Your task to perform on an android device: turn vacation reply on in the gmail app Image 0: 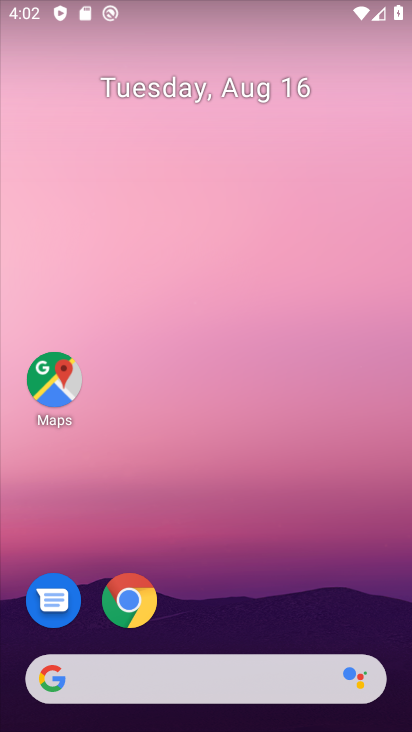
Step 0: click (132, 604)
Your task to perform on an android device: turn vacation reply on in the gmail app Image 1: 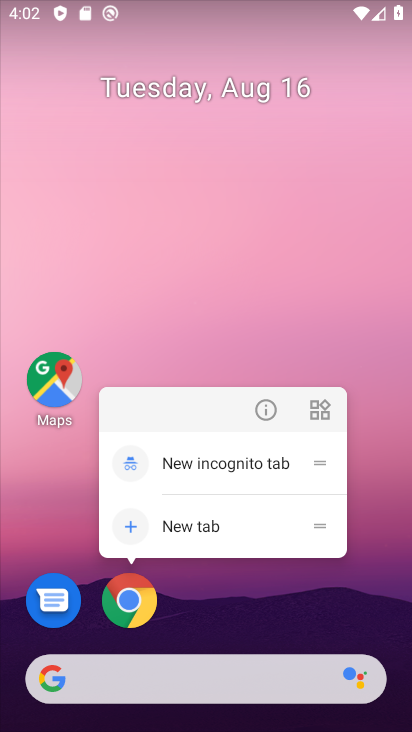
Step 1: click (139, 598)
Your task to perform on an android device: turn vacation reply on in the gmail app Image 2: 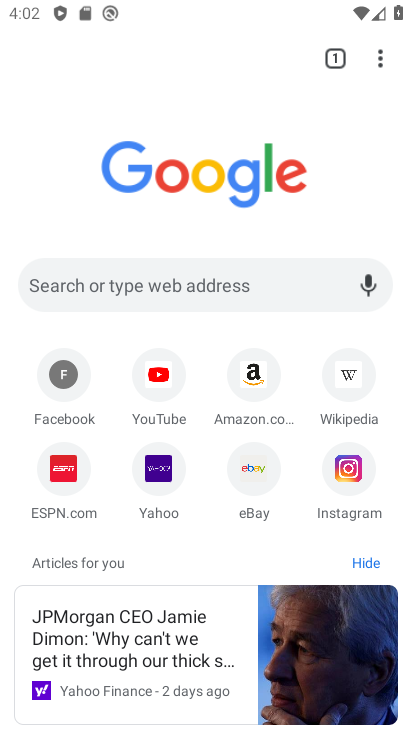
Step 2: click (123, 612)
Your task to perform on an android device: turn vacation reply on in the gmail app Image 3: 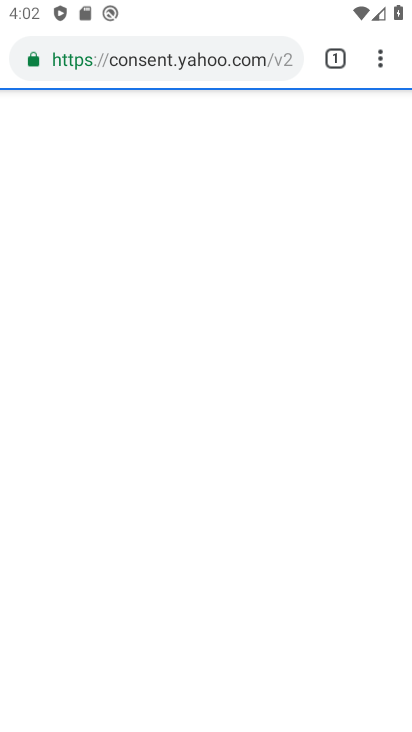
Step 3: press home button
Your task to perform on an android device: turn vacation reply on in the gmail app Image 4: 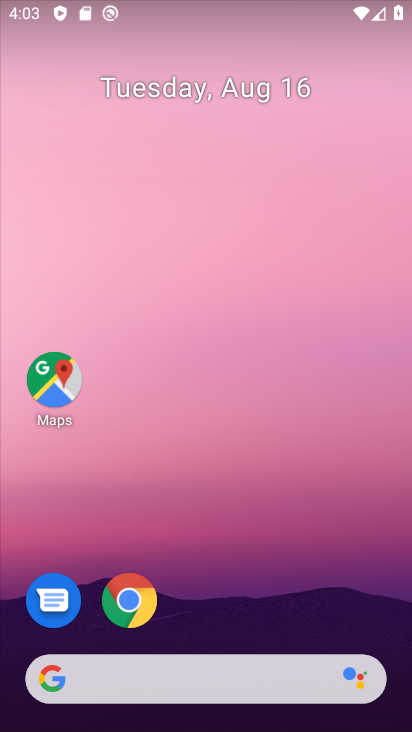
Step 4: drag from (231, 590) to (229, 112)
Your task to perform on an android device: turn vacation reply on in the gmail app Image 5: 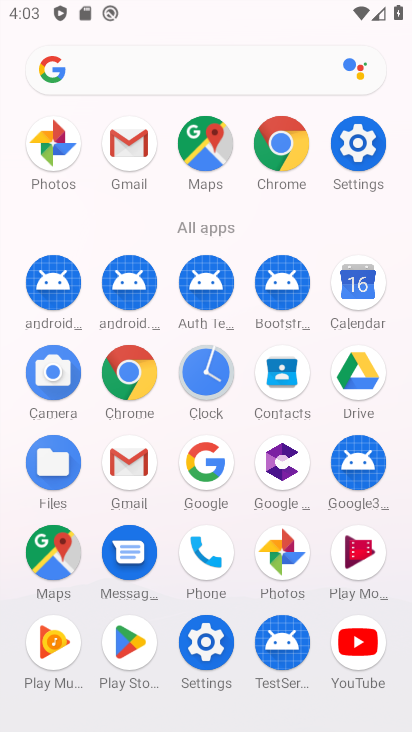
Step 5: click (129, 464)
Your task to perform on an android device: turn vacation reply on in the gmail app Image 6: 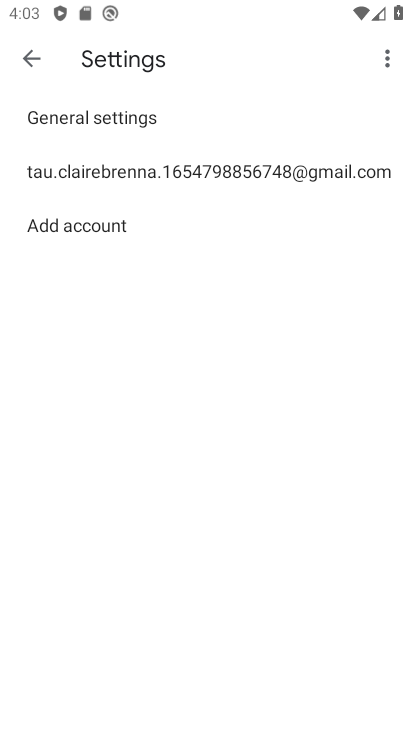
Step 6: click (85, 173)
Your task to perform on an android device: turn vacation reply on in the gmail app Image 7: 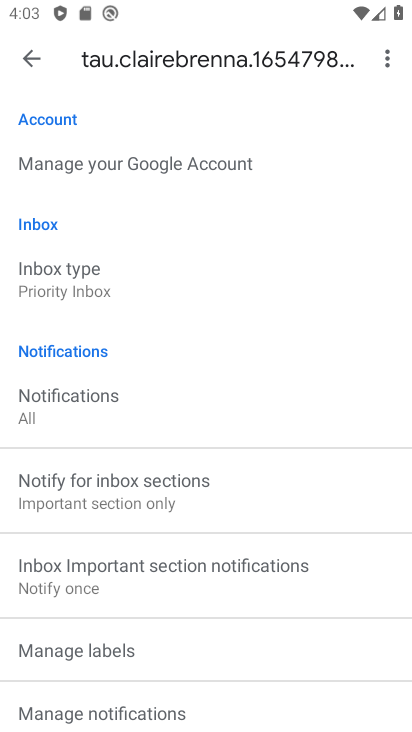
Step 7: drag from (118, 567) to (142, 418)
Your task to perform on an android device: turn vacation reply on in the gmail app Image 8: 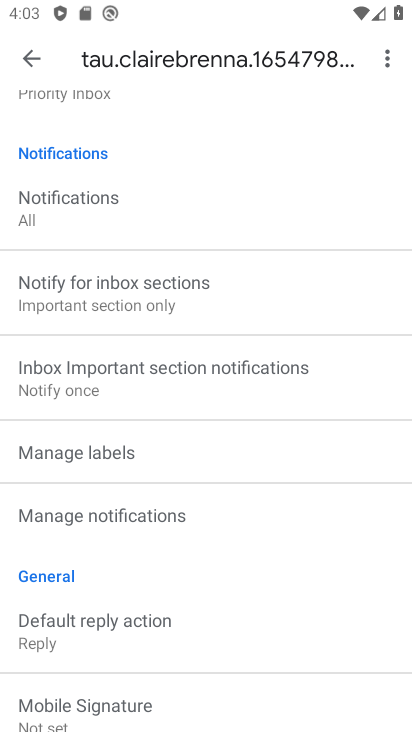
Step 8: drag from (153, 639) to (167, 377)
Your task to perform on an android device: turn vacation reply on in the gmail app Image 9: 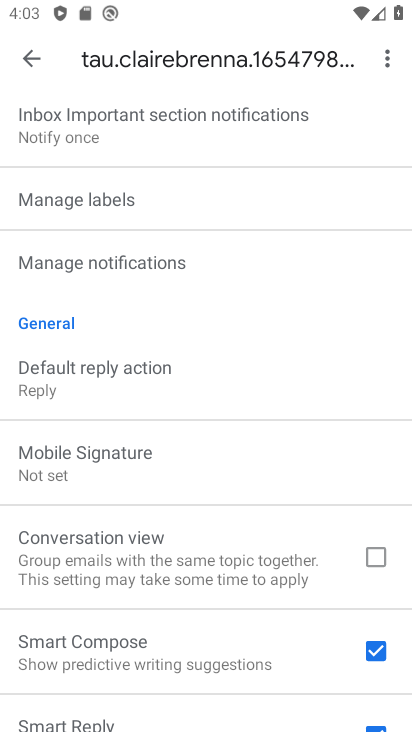
Step 9: drag from (133, 665) to (158, 362)
Your task to perform on an android device: turn vacation reply on in the gmail app Image 10: 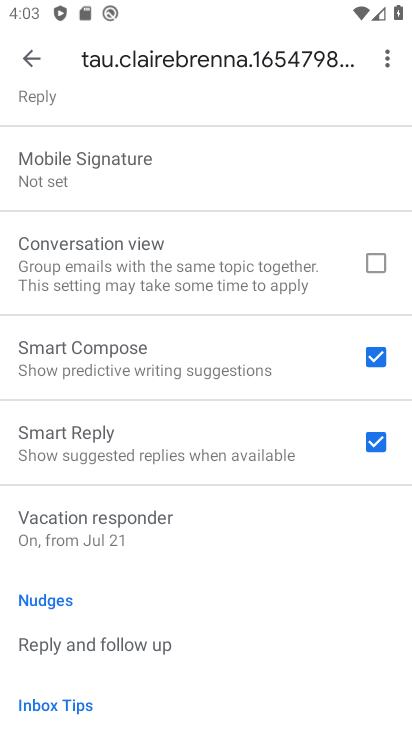
Step 10: click (112, 532)
Your task to perform on an android device: turn vacation reply on in the gmail app Image 11: 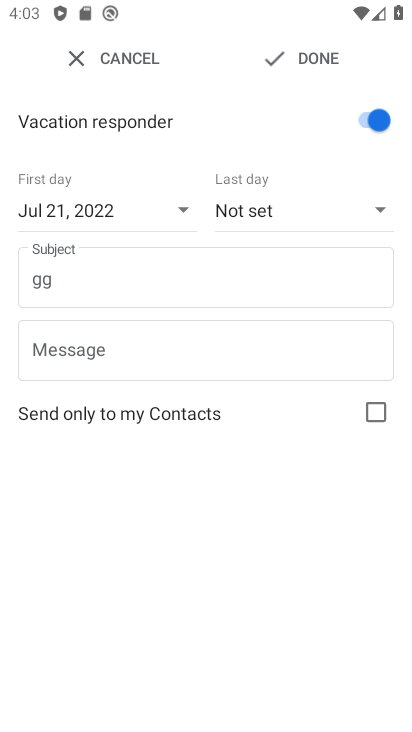
Step 11: task complete